Your task to perform on an android device: Open calendar and show me the second week of next month Image 0: 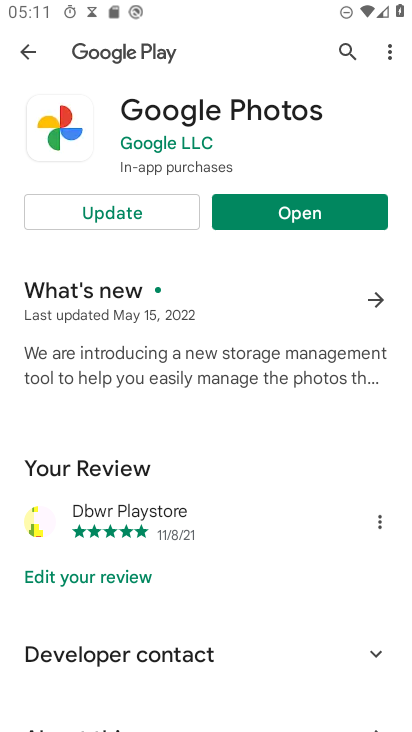
Step 0: press home button
Your task to perform on an android device: Open calendar and show me the second week of next month Image 1: 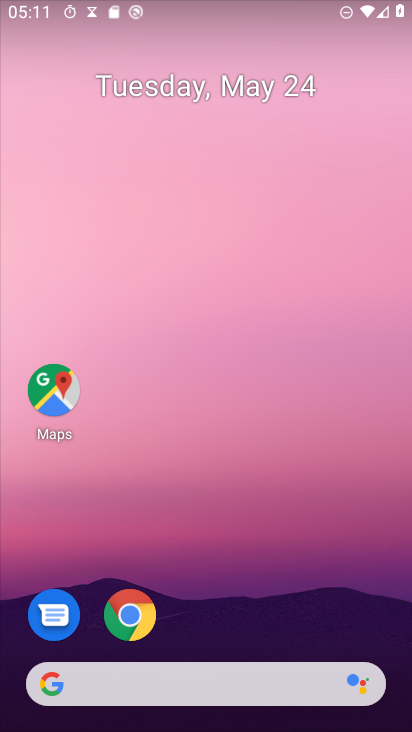
Step 1: drag from (237, 629) to (329, 2)
Your task to perform on an android device: Open calendar and show me the second week of next month Image 2: 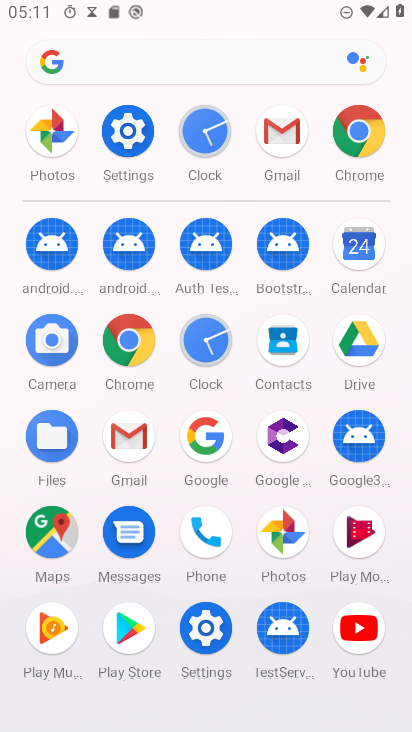
Step 2: click (372, 258)
Your task to perform on an android device: Open calendar and show me the second week of next month Image 3: 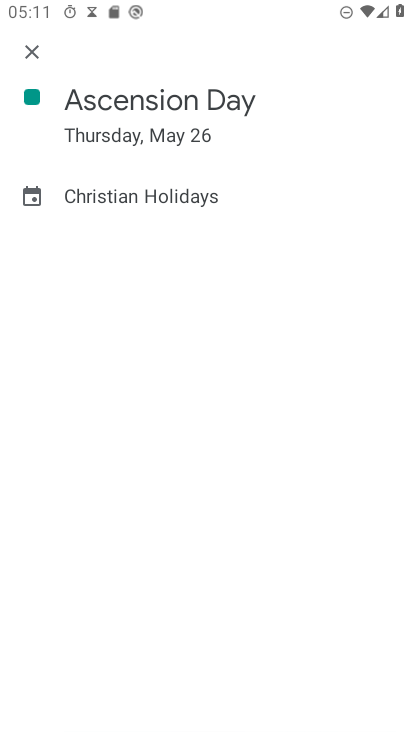
Step 3: click (32, 51)
Your task to perform on an android device: Open calendar and show me the second week of next month Image 4: 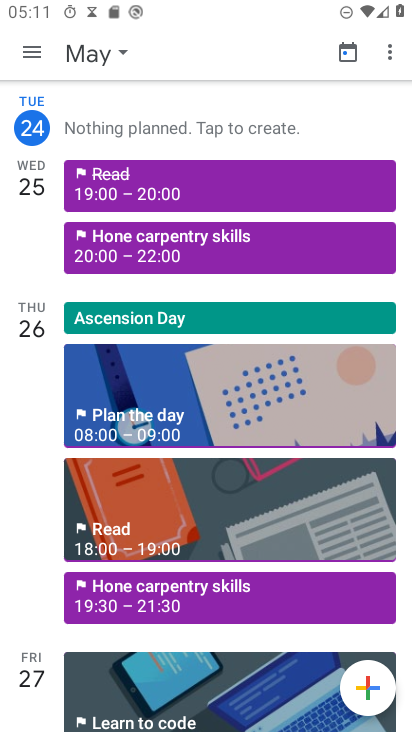
Step 4: click (86, 48)
Your task to perform on an android device: Open calendar and show me the second week of next month Image 5: 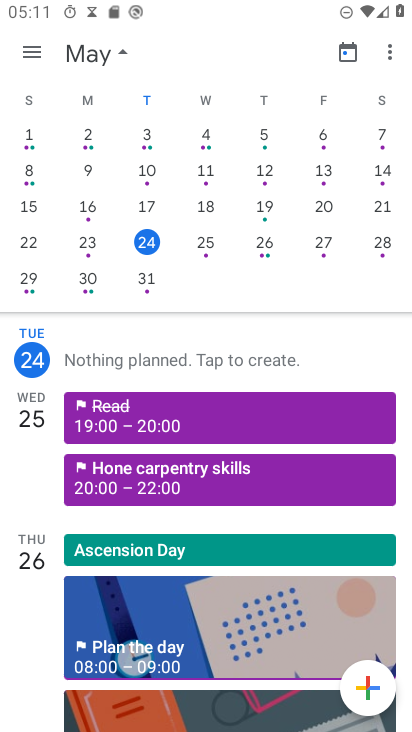
Step 5: drag from (395, 201) to (38, 169)
Your task to perform on an android device: Open calendar and show me the second week of next month Image 6: 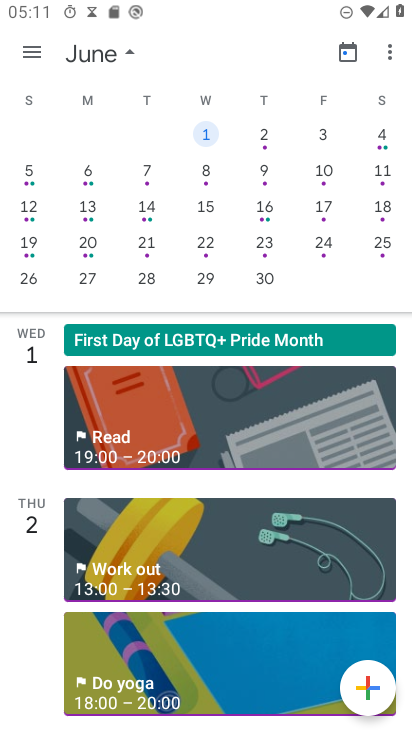
Step 6: click (82, 172)
Your task to perform on an android device: Open calendar and show me the second week of next month Image 7: 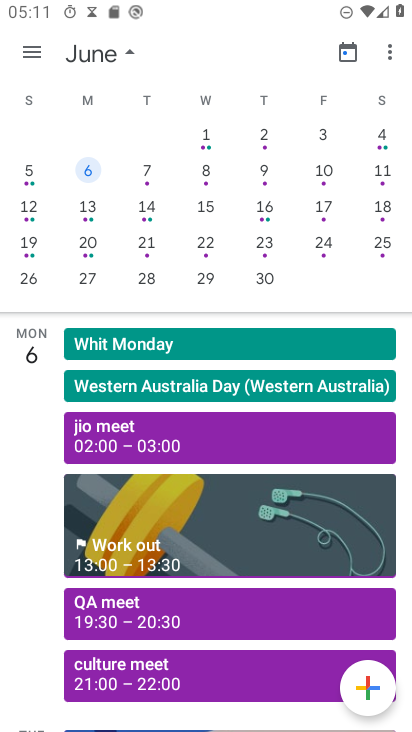
Step 7: task complete